Your task to perform on an android device: toggle show notifications on the lock screen Image 0: 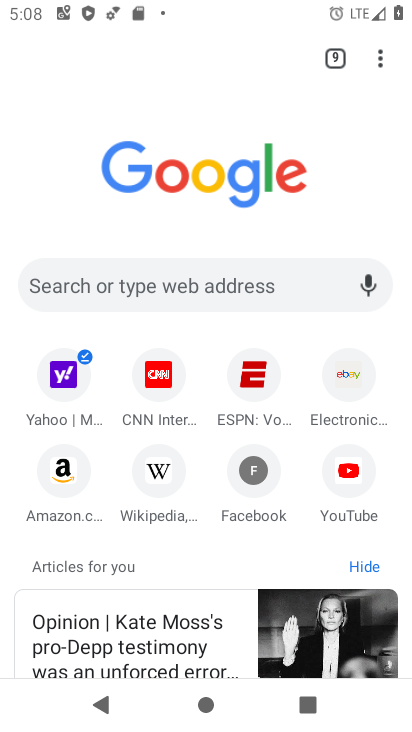
Step 0: drag from (382, 61) to (166, 504)
Your task to perform on an android device: toggle show notifications on the lock screen Image 1: 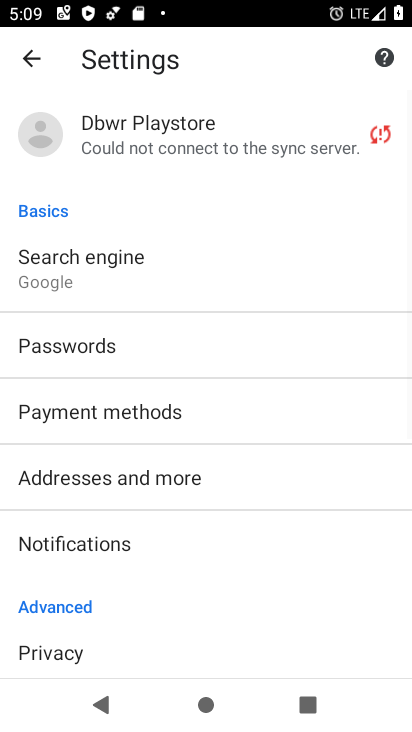
Step 1: drag from (143, 632) to (242, 161)
Your task to perform on an android device: toggle show notifications on the lock screen Image 2: 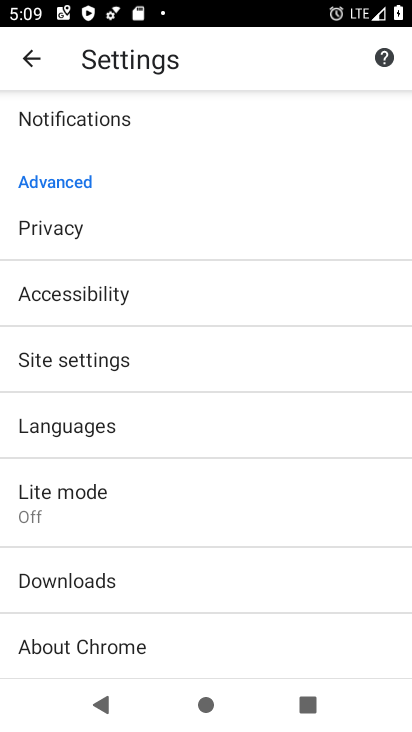
Step 2: drag from (174, 272) to (130, 561)
Your task to perform on an android device: toggle show notifications on the lock screen Image 3: 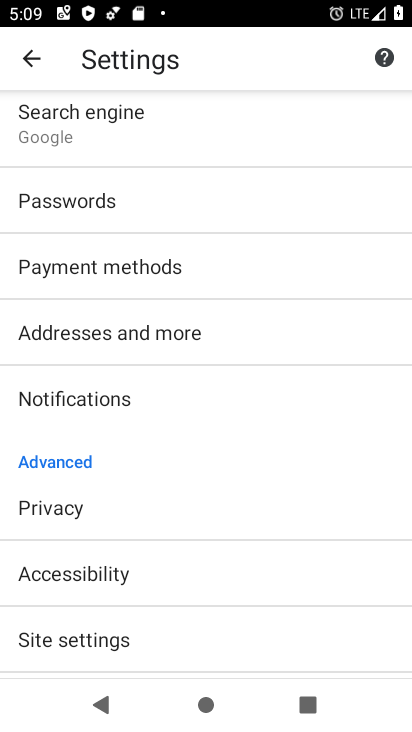
Step 3: drag from (206, 211) to (117, 728)
Your task to perform on an android device: toggle show notifications on the lock screen Image 4: 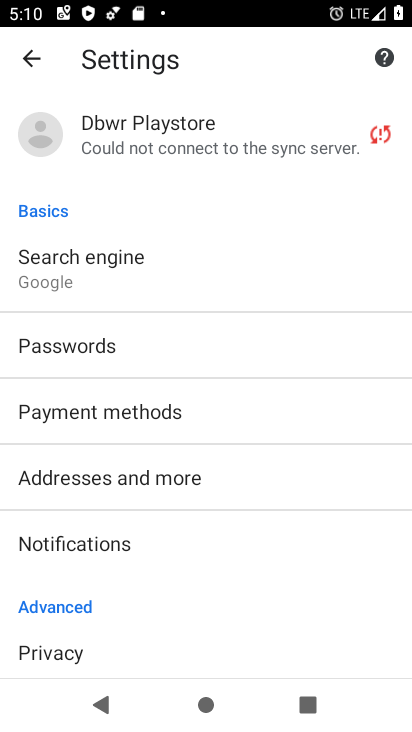
Step 4: press back button
Your task to perform on an android device: toggle show notifications on the lock screen Image 5: 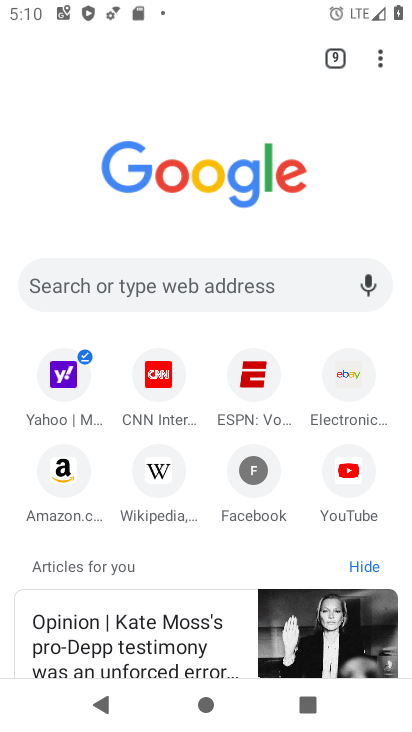
Step 5: press back button
Your task to perform on an android device: toggle show notifications on the lock screen Image 6: 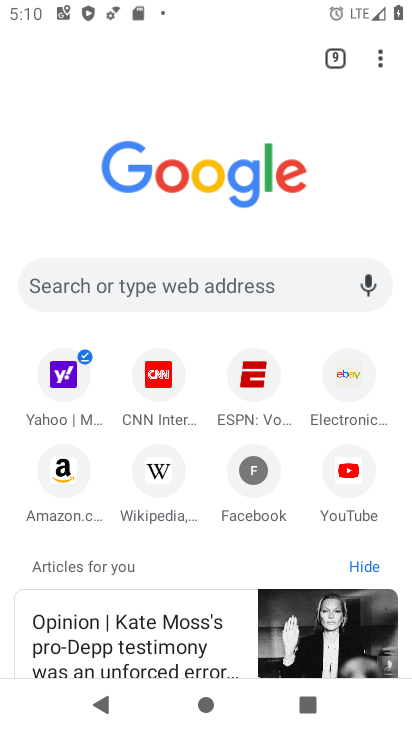
Step 6: press back button
Your task to perform on an android device: toggle show notifications on the lock screen Image 7: 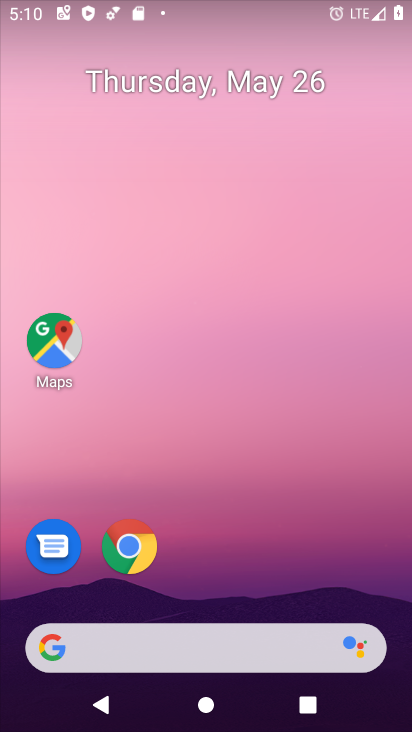
Step 7: drag from (221, 476) to (326, 63)
Your task to perform on an android device: toggle show notifications on the lock screen Image 8: 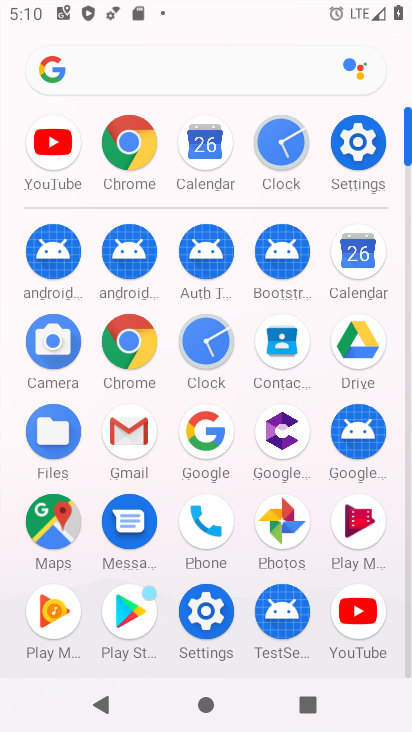
Step 8: click (354, 142)
Your task to perform on an android device: toggle show notifications on the lock screen Image 9: 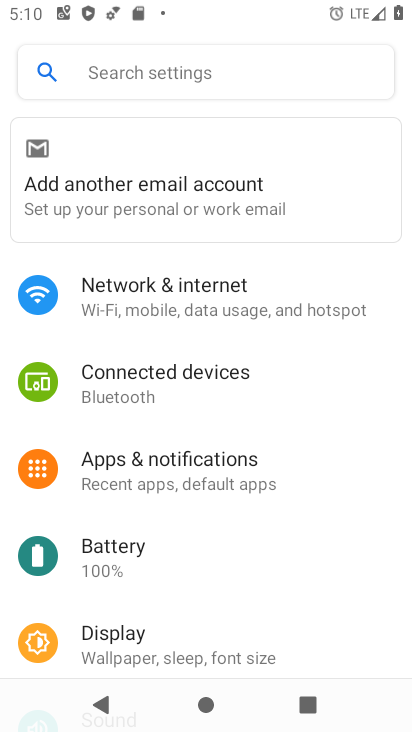
Step 9: click (182, 465)
Your task to perform on an android device: toggle show notifications on the lock screen Image 10: 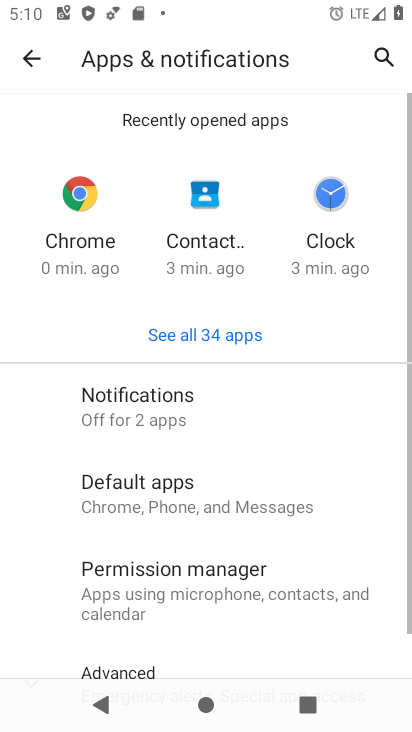
Step 10: click (173, 412)
Your task to perform on an android device: toggle show notifications on the lock screen Image 11: 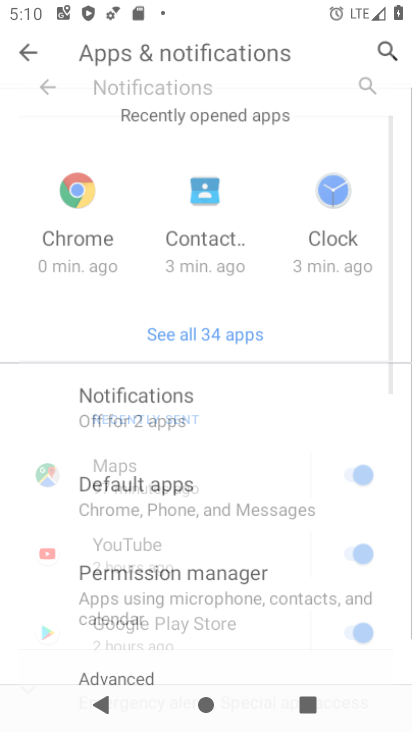
Step 11: drag from (178, 550) to (278, 144)
Your task to perform on an android device: toggle show notifications on the lock screen Image 12: 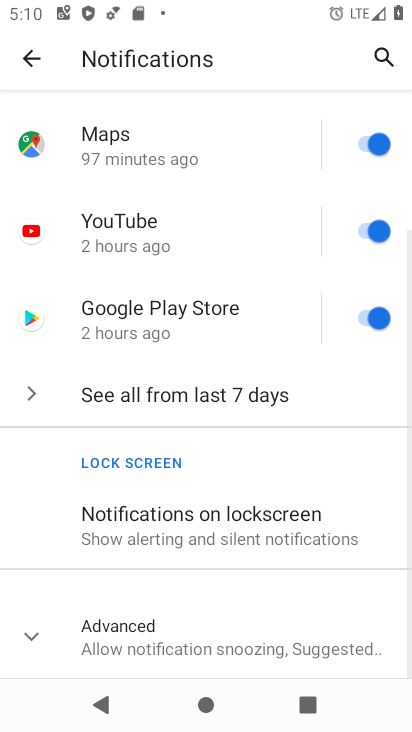
Step 12: click (237, 523)
Your task to perform on an android device: toggle show notifications on the lock screen Image 13: 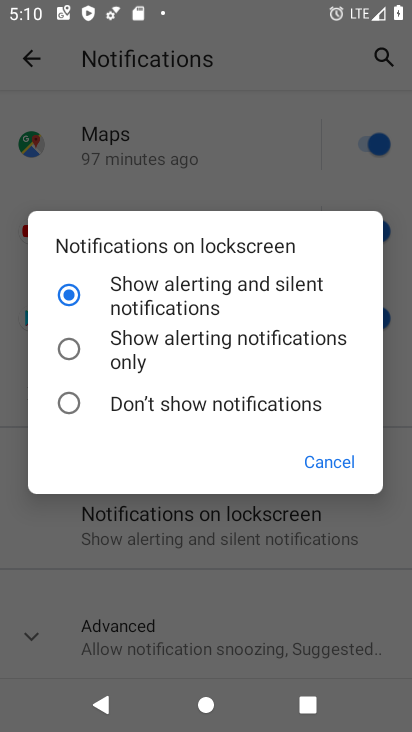
Step 13: click (62, 303)
Your task to perform on an android device: toggle show notifications on the lock screen Image 14: 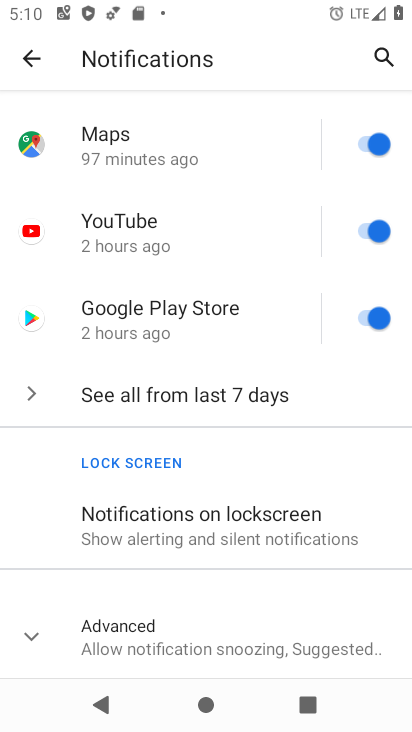
Step 14: task complete